Your task to perform on an android device: Go to ESPN.com Image 0: 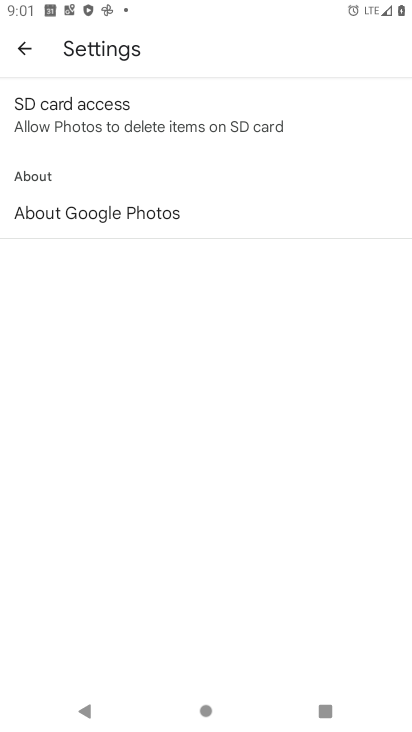
Step 0: press home button
Your task to perform on an android device: Go to ESPN.com Image 1: 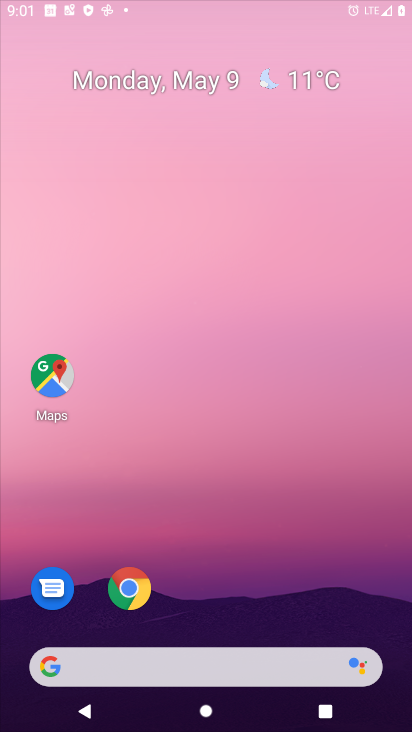
Step 1: drag from (350, 612) to (306, 51)
Your task to perform on an android device: Go to ESPN.com Image 2: 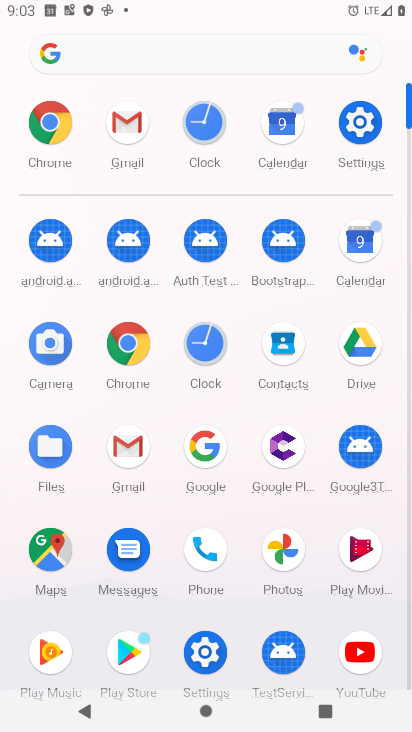
Step 2: click (133, 344)
Your task to perform on an android device: Go to ESPN.com Image 3: 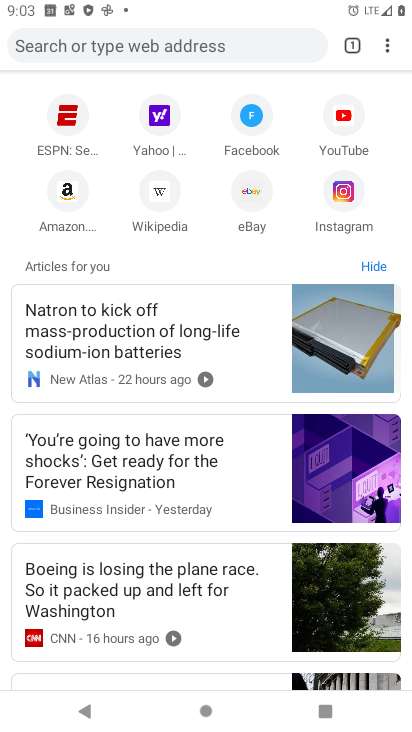
Step 3: click (74, 133)
Your task to perform on an android device: Go to ESPN.com Image 4: 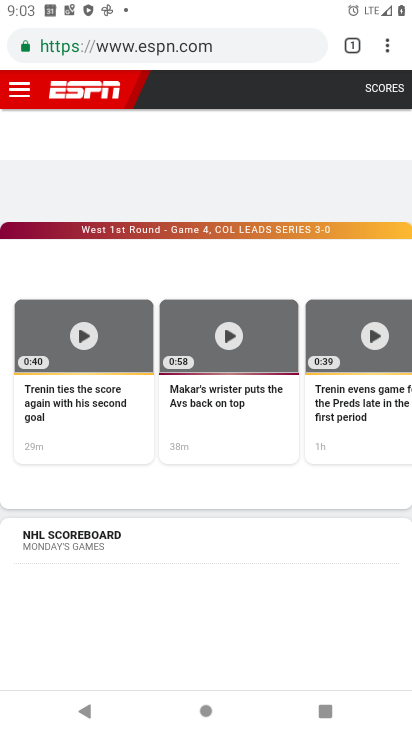
Step 4: task complete